Your task to perform on an android device: turn on location history Image 0: 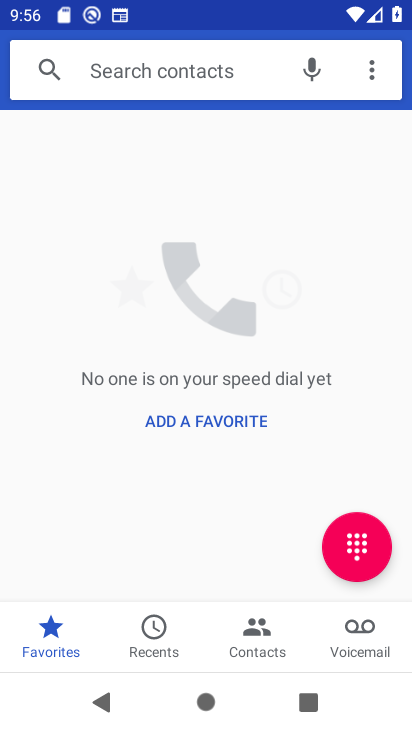
Step 0: press home button
Your task to perform on an android device: turn on location history Image 1: 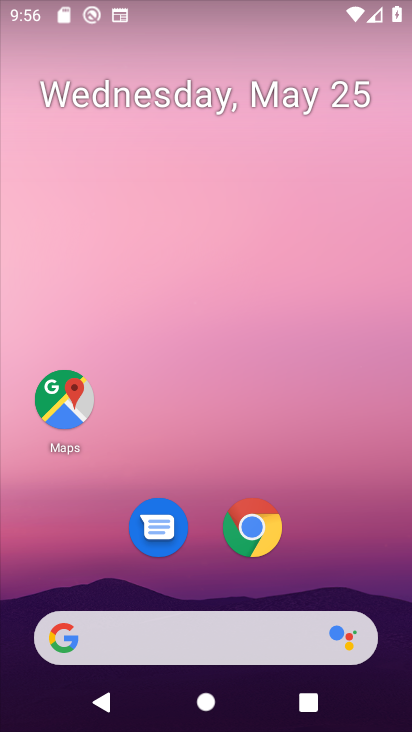
Step 1: drag from (378, 571) to (304, 35)
Your task to perform on an android device: turn on location history Image 2: 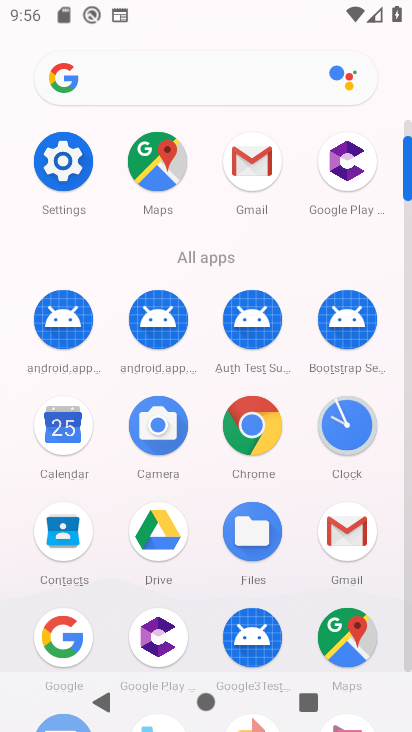
Step 2: click (73, 196)
Your task to perform on an android device: turn on location history Image 3: 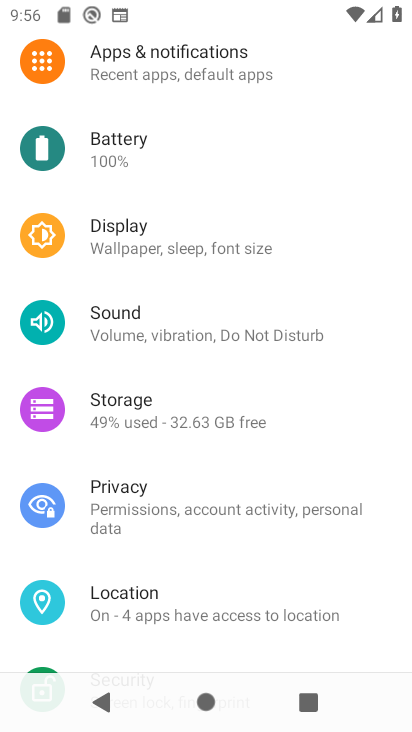
Step 3: click (194, 610)
Your task to perform on an android device: turn on location history Image 4: 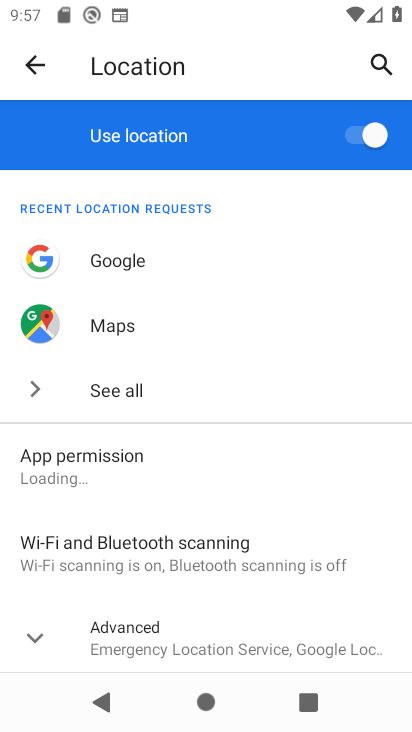
Step 4: click (149, 637)
Your task to perform on an android device: turn on location history Image 5: 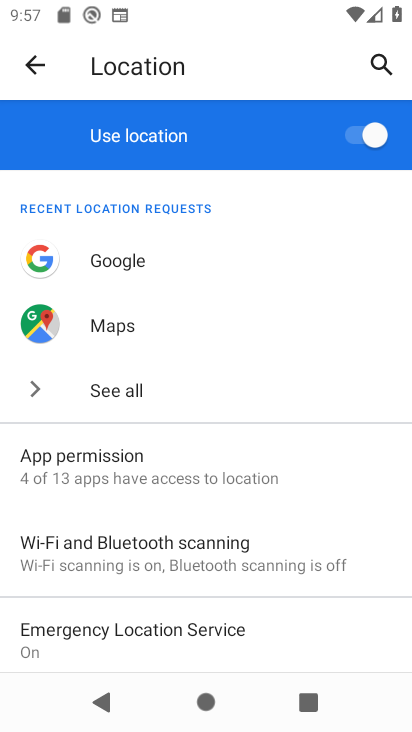
Step 5: drag from (219, 601) to (179, 328)
Your task to perform on an android device: turn on location history Image 6: 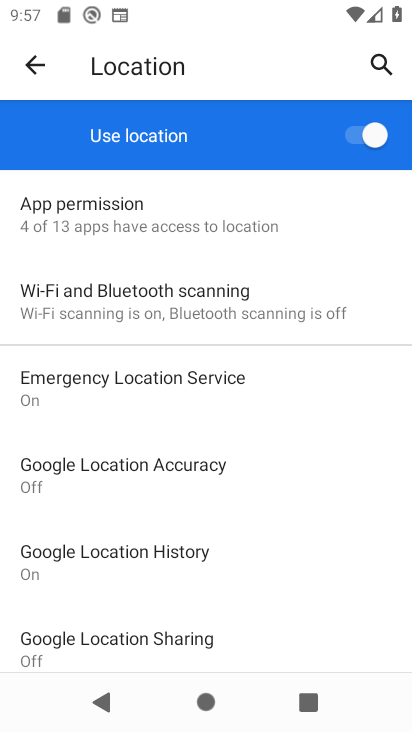
Step 6: click (159, 564)
Your task to perform on an android device: turn on location history Image 7: 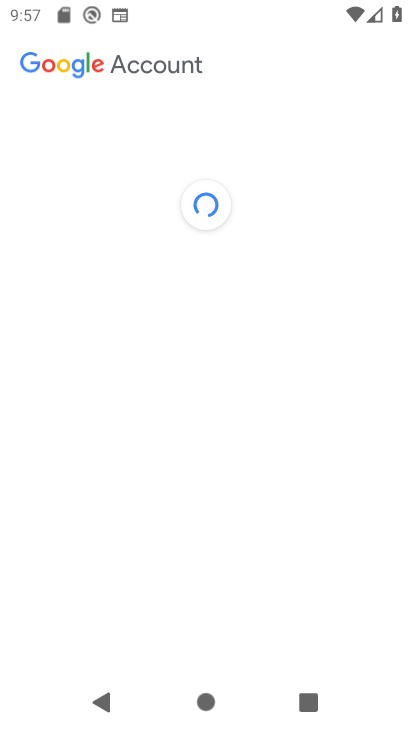
Step 7: drag from (238, 647) to (215, 67)
Your task to perform on an android device: turn on location history Image 8: 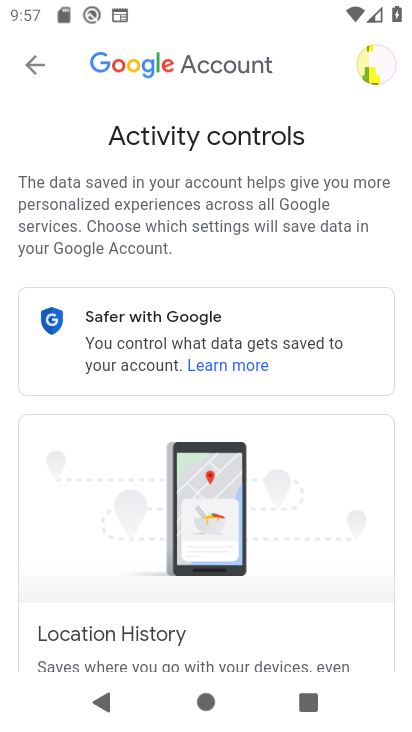
Step 8: drag from (222, 579) to (198, 67)
Your task to perform on an android device: turn on location history Image 9: 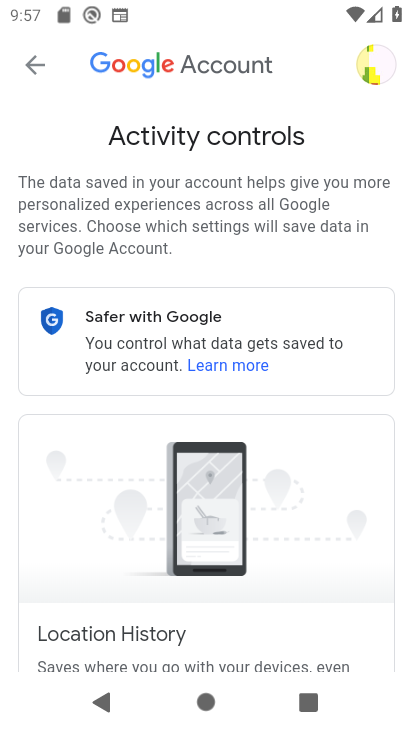
Step 9: drag from (196, 638) to (174, 178)
Your task to perform on an android device: turn on location history Image 10: 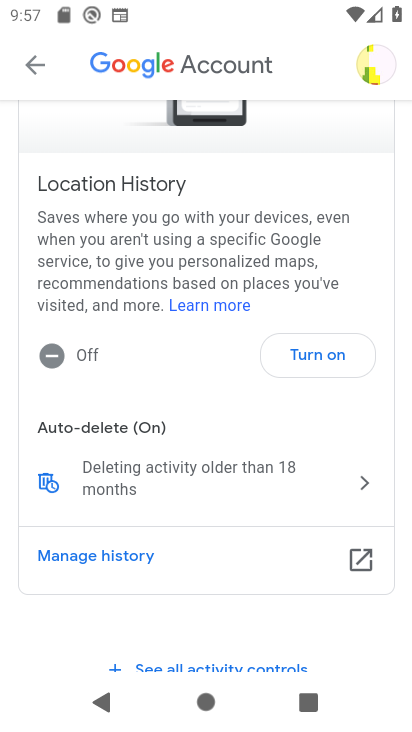
Step 10: click (312, 350)
Your task to perform on an android device: turn on location history Image 11: 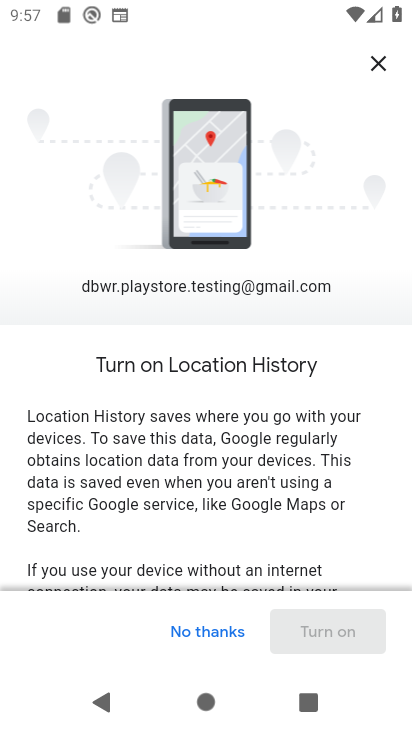
Step 11: drag from (347, 578) to (346, 292)
Your task to perform on an android device: turn on location history Image 12: 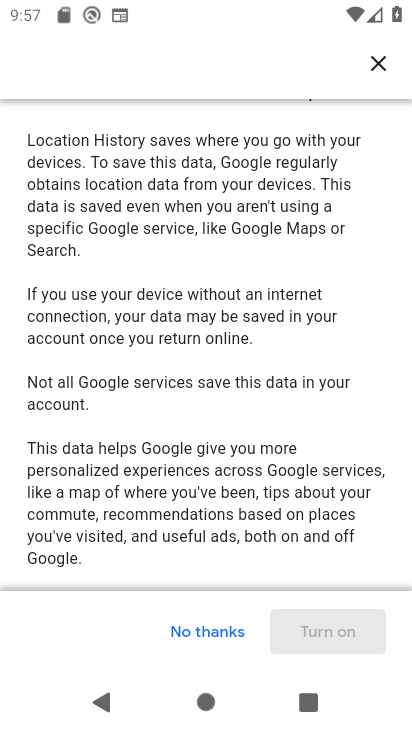
Step 12: drag from (323, 567) to (347, 271)
Your task to perform on an android device: turn on location history Image 13: 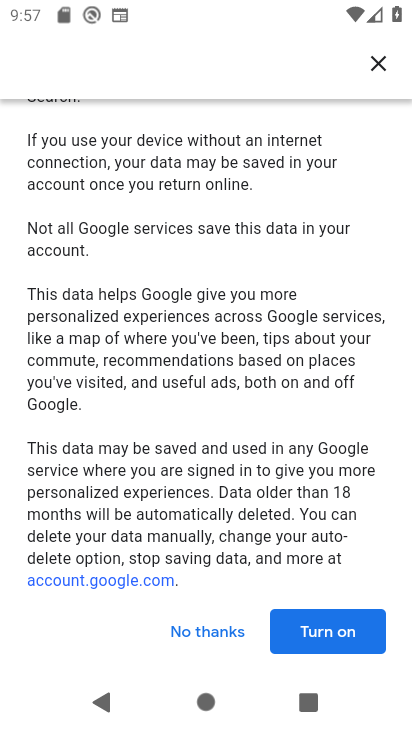
Step 13: click (343, 639)
Your task to perform on an android device: turn on location history Image 14: 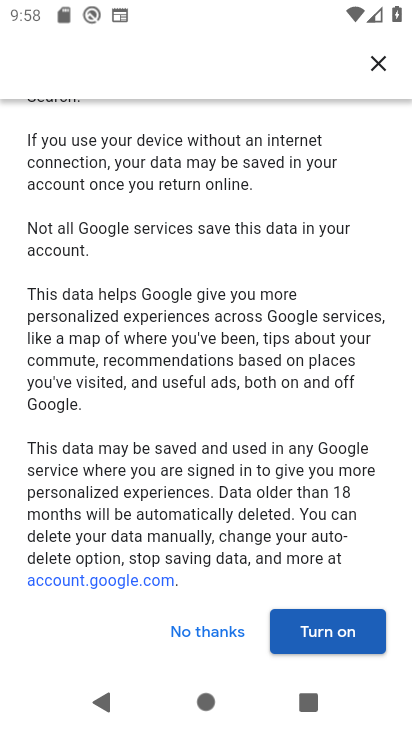
Step 14: click (357, 635)
Your task to perform on an android device: turn on location history Image 15: 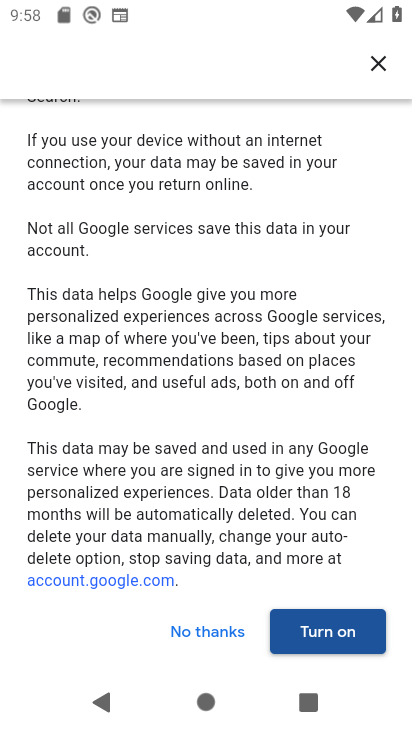
Step 15: task complete